Your task to perform on an android device: open wifi settings Image 0: 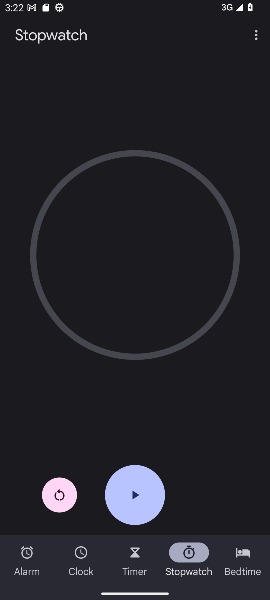
Step 0: press home button
Your task to perform on an android device: open wifi settings Image 1: 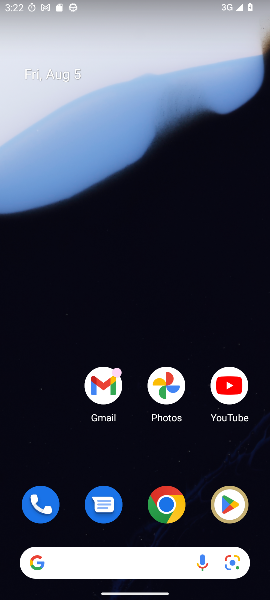
Step 1: drag from (100, 353) to (222, 80)
Your task to perform on an android device: open wifi settings Image 2: 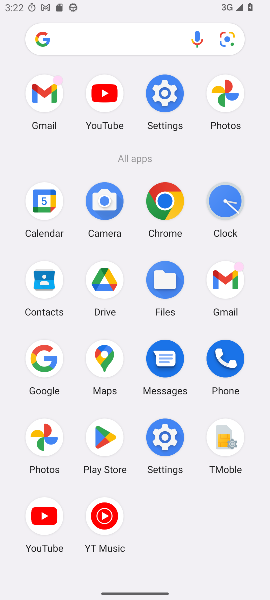
Step 2: click (172, 448)
Your task to perform on an android device: open wifi settings Image 3: 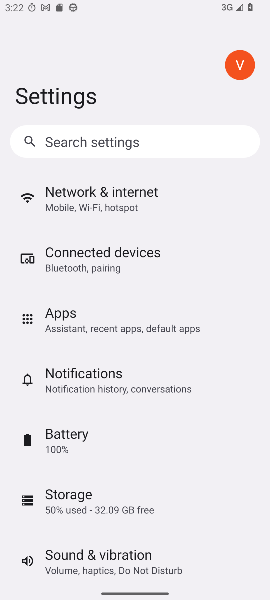
Step 3: drag from (165, 493) to (204, 58)
Your task to perform on an android device: open wifi settings Image 4: 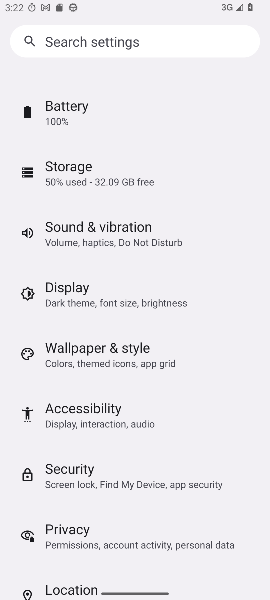
Step 4: drag from (166, 543) to (191, 98)
Your task to perform on an android device: open wifi settings Image 5: 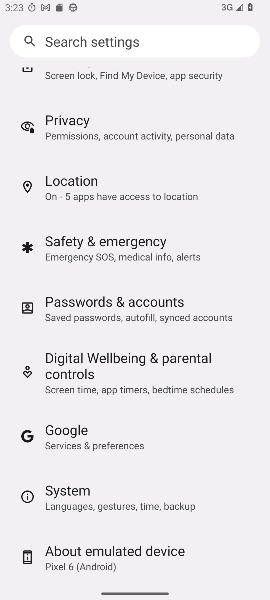
Step 5: drag from (120, 69) to (126, 426)
Your task to perform on an android device: open wifi settings Image 6: 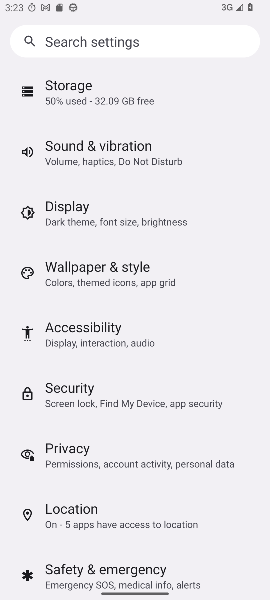
Step 6: drag from (188, 167) to (162, 562)
Your task to perform on an android device: open wifi settings Image 7: 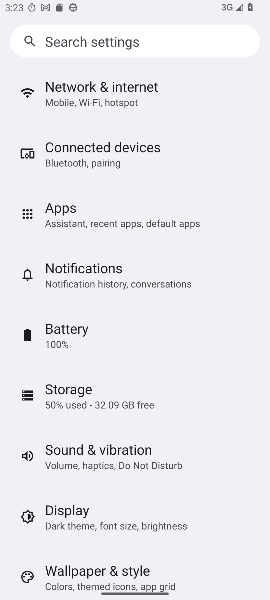
Step 7: click (64, 101)
Your task to perform on an android device: open wifi settings Image 8: 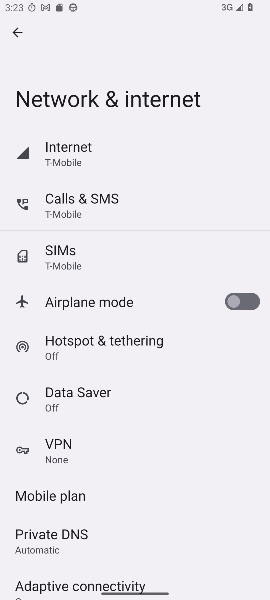
Step 8: drag from (162, 545) to (183, 142)
Your task to perform on an android device: open wifi settings Image 9: 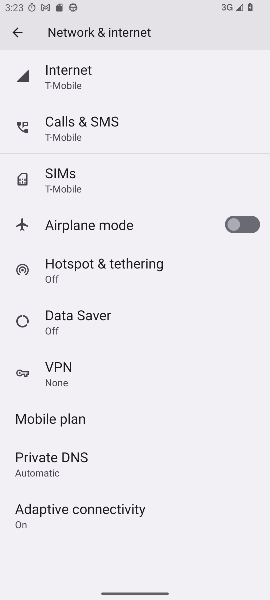
Step 9: drag from (136, 504) to (101, 579)
Your task to perform on an android device: open wifi settings Image 10: 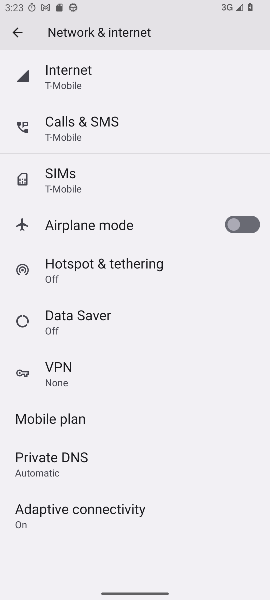
Step 10: drag from (152, 77) to (102, 506)
Your task to perform on an android device: open wifi settings Image 11: 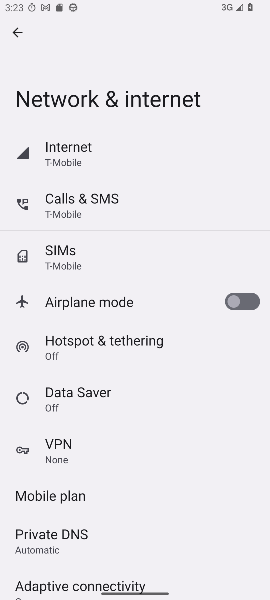
Step 11: click (72, 158)
Your task to perform on an android device: open wifi settings Image 12: 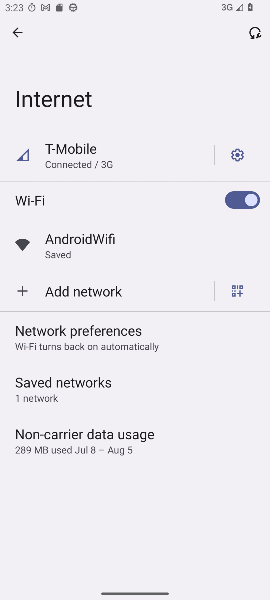
Step 12: click (16, 33)
Your task to perform on an android device: open wifi settings Image 13: 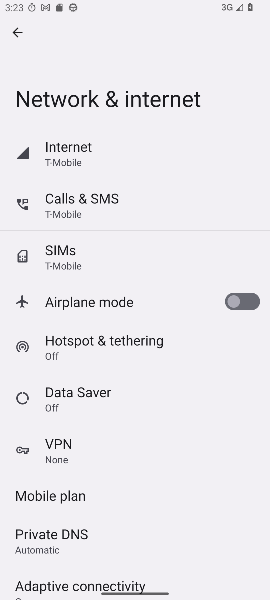
Step 13: task complete